Your task to perform on an android device: Is it going to rain today? Image 0: 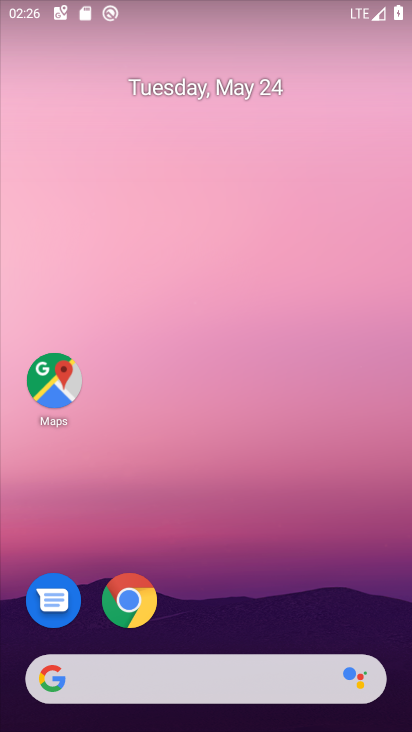
Step 0: click (289, 664)
Your task to perform on an android device: Is it going to rain today? Image 1: 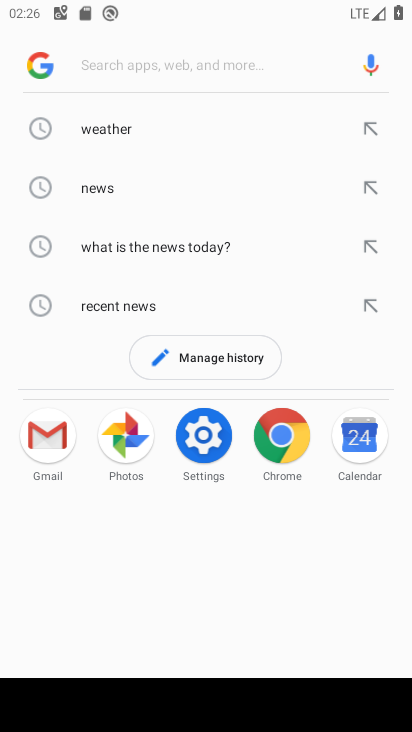
Step 1: click (211, 142)
Your task to perform on an android device: Is it going to rain today? Image 2: 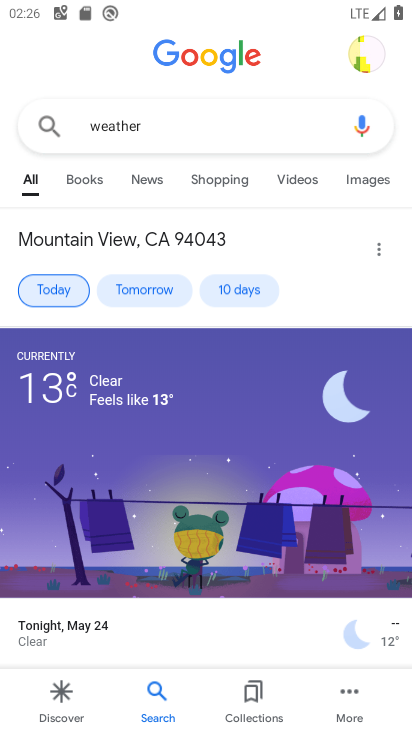
Step 2: task complete